Your task to perform on an android device: Show me productivity apps on the Play Store Image 0: 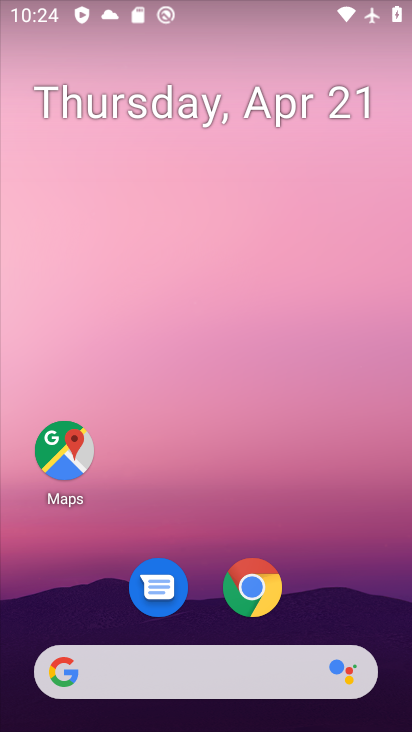
Step 0: drag from (323, 598) to (344, 191)
Your task to perform on an android device: Show me productivity apps on the Play Store Image 1: 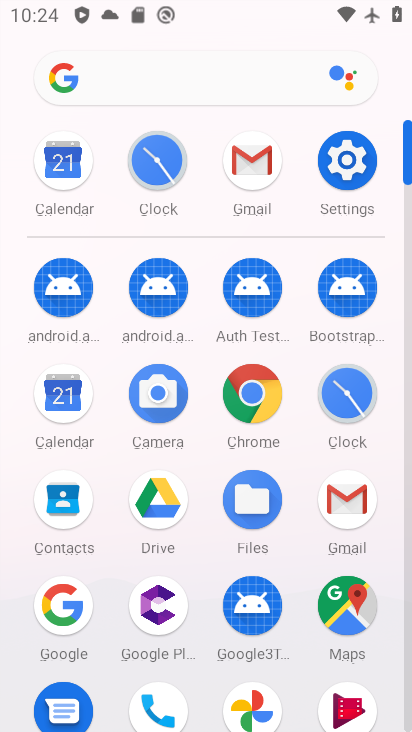
Step 1: drag from (378, 657) to (398, 323)
Your task to perform on an android device: Show me productivity apps on the Play Store Image 2: 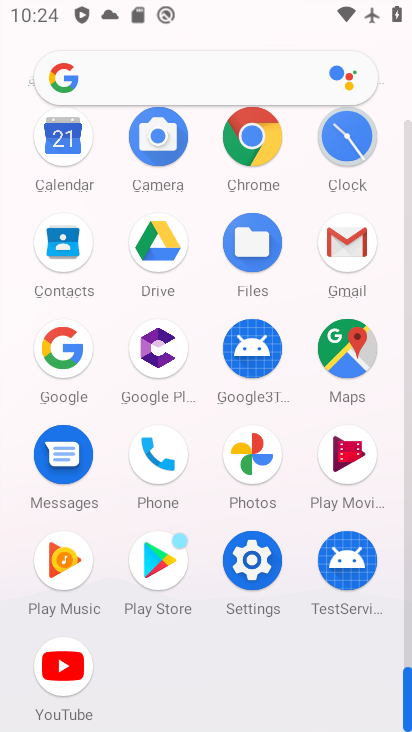
Step 2: click (169, 578)
Your task to perform on an android device: Show me productivity apps on the Play Store Image 3: 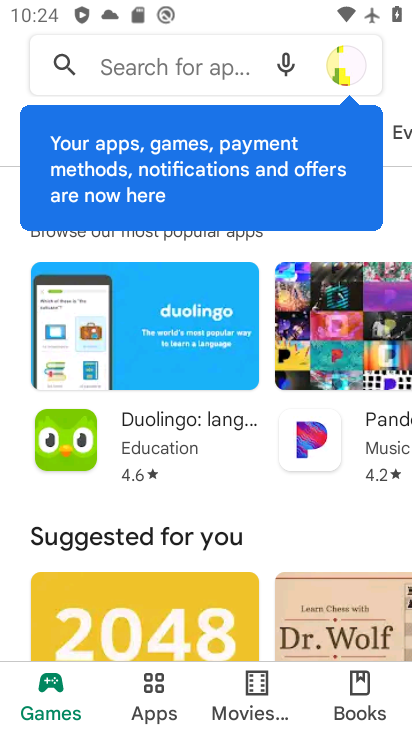
Step 3: click (154, 691)
Your task to perform on an android device: Show me productivity apps on the Play Store Image 4: 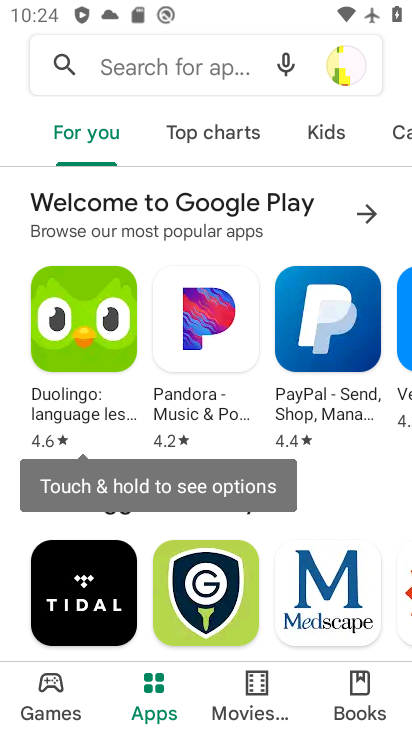
Step 4: drag from (260, 600) to (265, 418)
Your task to perform on an android device: Show me productivity apps on the Play Store Image 5: 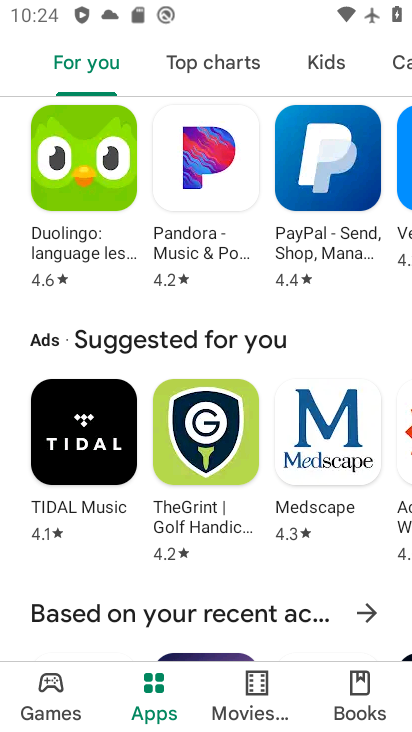
Step 5: drag from (264, 364) to (264, 564)
Your task to perform on an android device: Show me productivity apps on the Play Store Image 6: 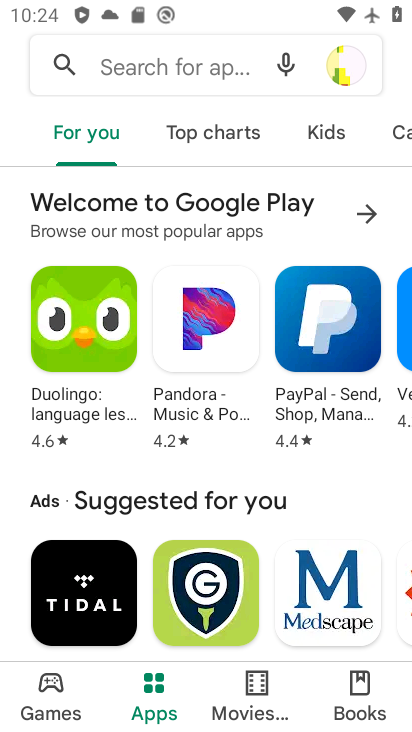
Step 6: drag from (297, 154) to (34, 147)
Your task to perform on an android device: Show me productivity apps on the Play Store Image 7: 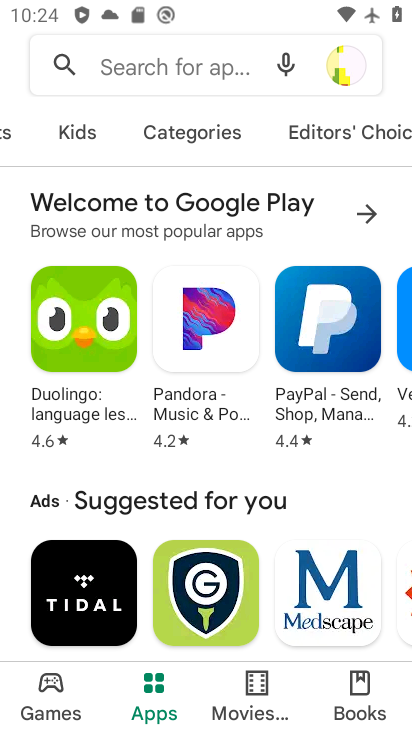
Step 7: drag from (288, 160) to (66, 161)
Your task to perform on an android device: Show me productivity apps on the Play Store Image 8: 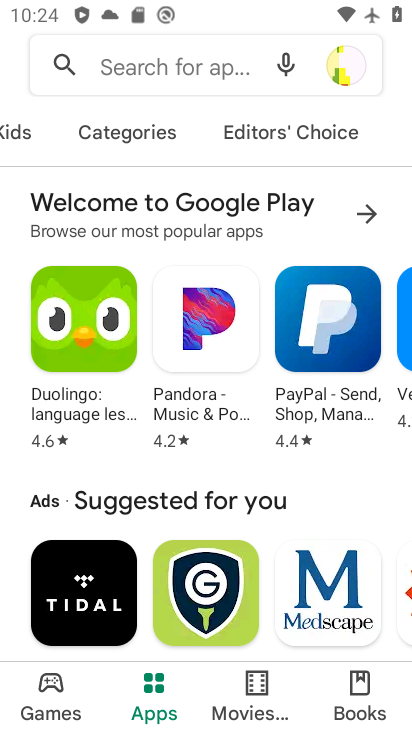
Step 8: drag from (265, 478) to (238, 317)
Your task to perform on an android device: Show me productivity apps on the Play Store Image 9: 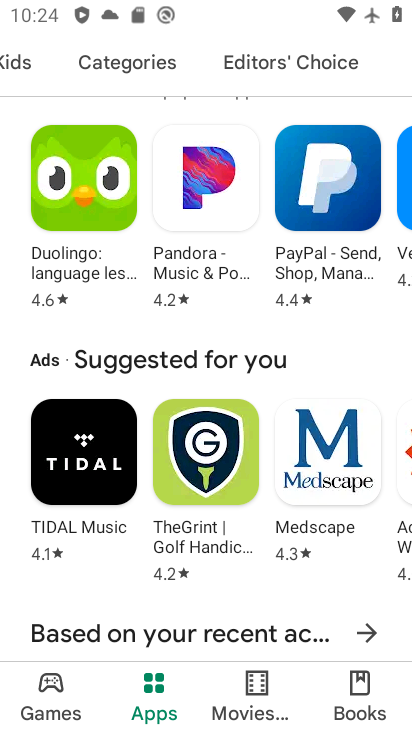
Step 9: drag from (242, 529) to (254, 427)
Your task to perform on an android device: Show me productivity apps on the Play Store Image 10: 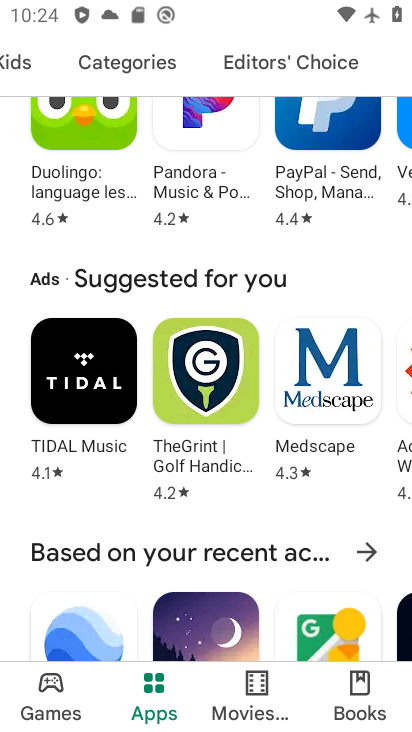
Step 10: drag from (255, 516) to (252, 312)
Your task to perform on an android device: Show me productivity apps on the Play Store Image 11: 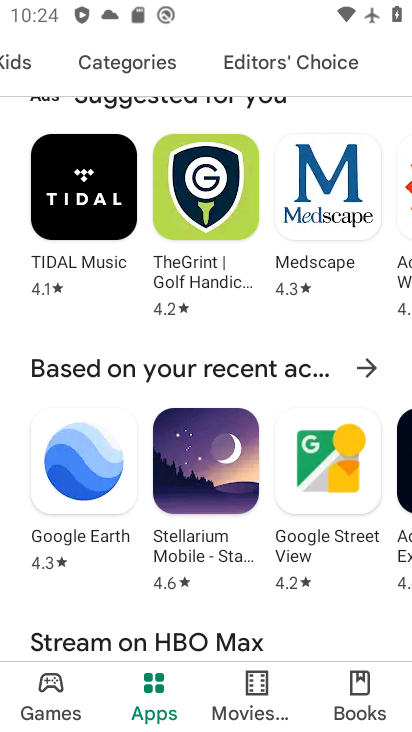
Step 11: drag from (254, 453) to (256, 416)
Your task to perform on an android device: Show me productivity apps on the Play Store Image 12: 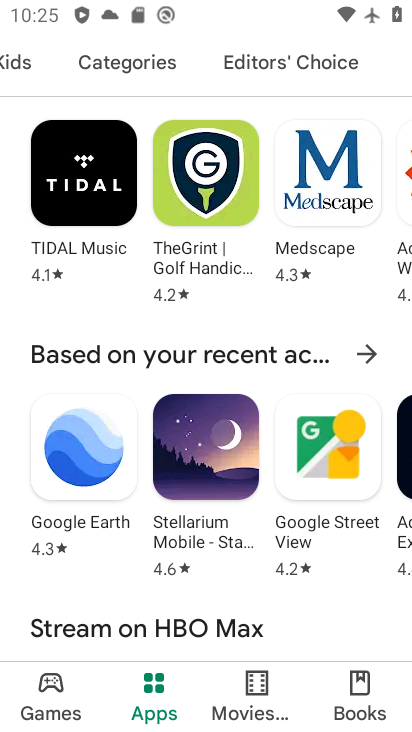
Step 12: drag from (258, 522) to (266, 416)
Your task to perform on an android device: Show me productivity apps on the Play Store Image 13: 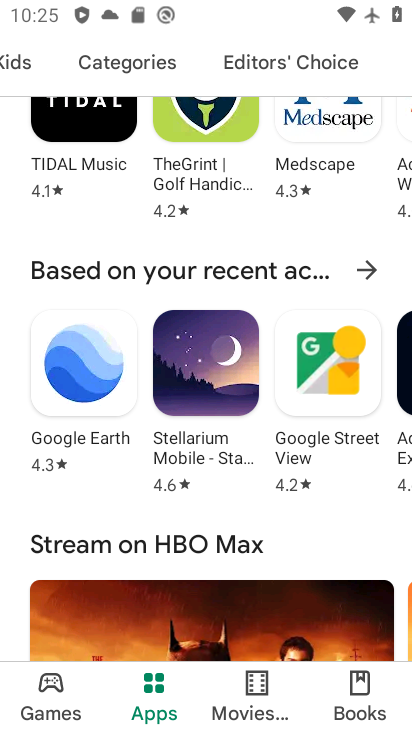
Step 13: drag from (256, 499) to (257, 408)
Your task to perform on an android device: Show me productivity apps on the Play Store Image 14: 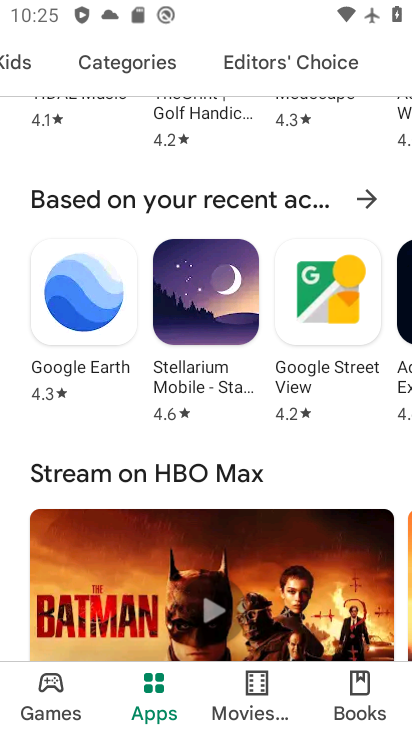
Step 14: drag from (228, 524) to (237, 420)
Your task to perform on an android device: Show me productivity apps on the Play Store Image 15: 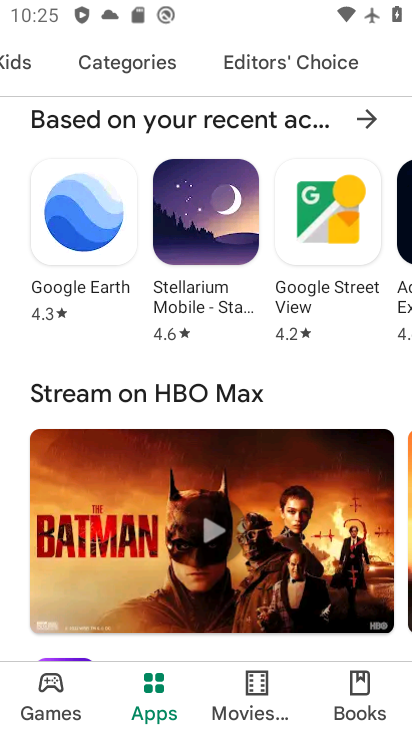
Step 15: drag from (221, 509) to (250, 263)
Your task to perform on an android device: Show me productivity apps on the Play Store Image 16: 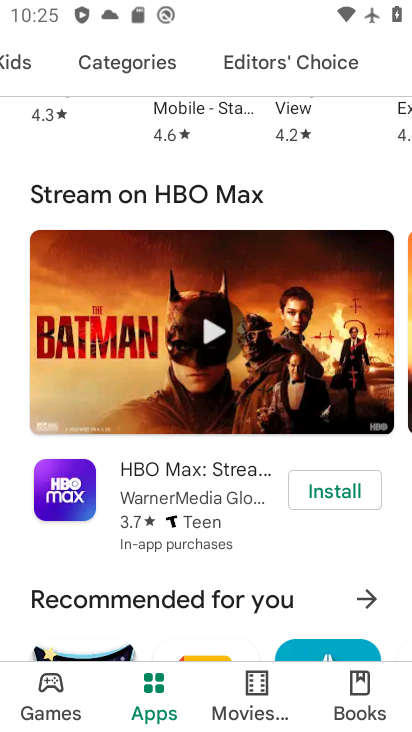
Step 16: drag from (226, 527) to (242, 417)
Your task to perform on an android device: Show me productivity apps on the Play Store Image 17: 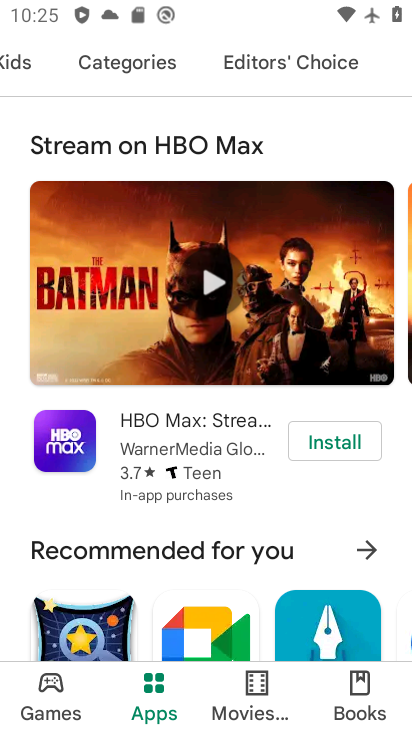
Step 17: drag from (235, 498) to (233, 388)
Your task to perform on an android device: Show me productivity apps on the Play Store Image 18: 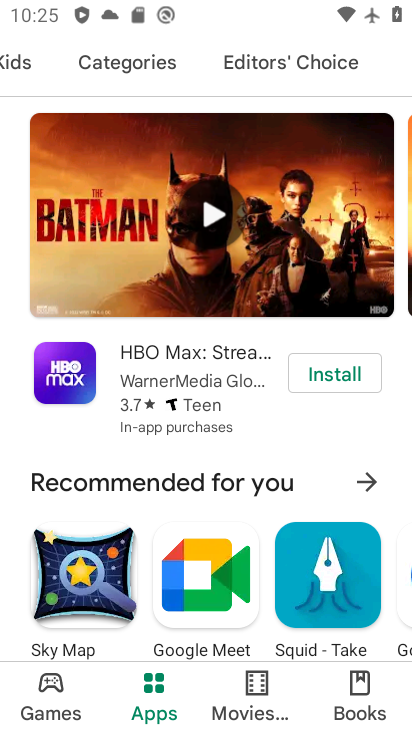
Step 18: drag from (227, 486) to (228, 387)
Your task to perform on an android device: Show me productivity apps on the Play Store Image 19: 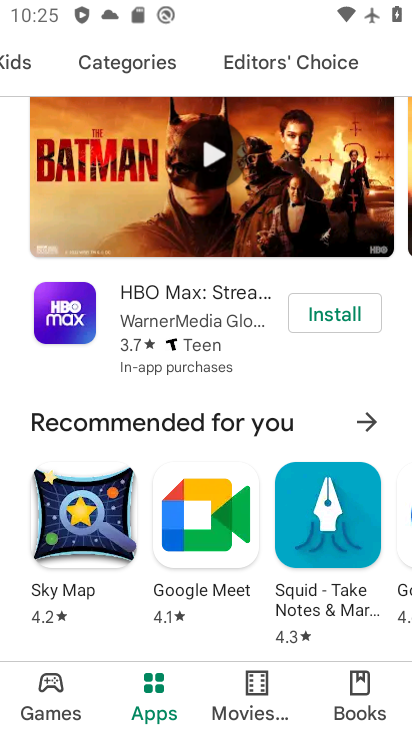
Step 19: drag from (233, 446) to (231, 397)
Your task to perform on an android device: Show me productivity apps on the Play Store Image 20: 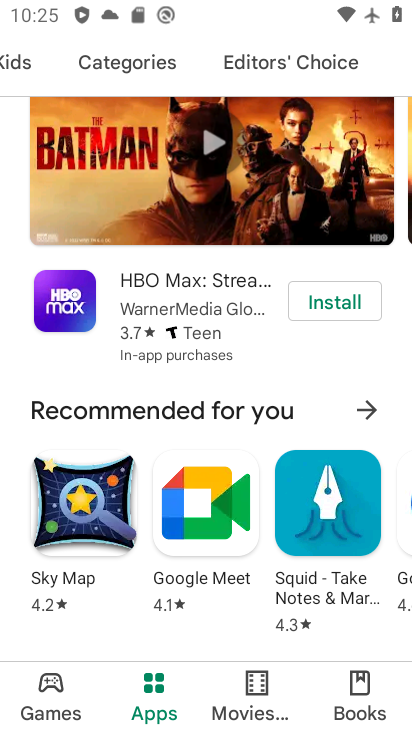
Step 20: drag from (232, 445) to (235, 334)
Your task to perform on an android device: Show me productivity apps on the Play Store Image 21: 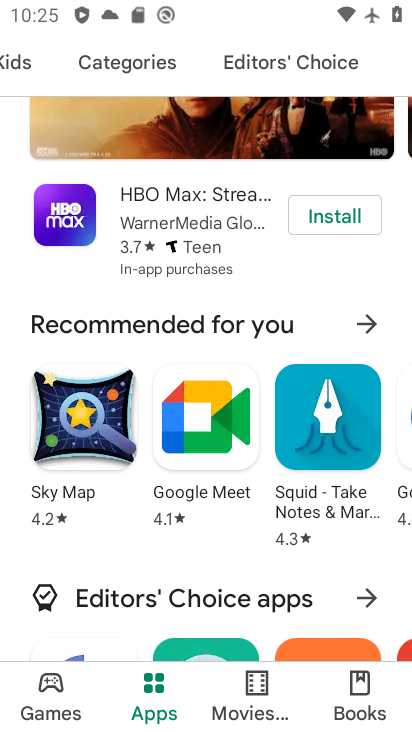
Step 21: drag from (231, 422) to (235, 386)
Your task to perform on an android device: Show me productivity apps on the Play Store Image 22: 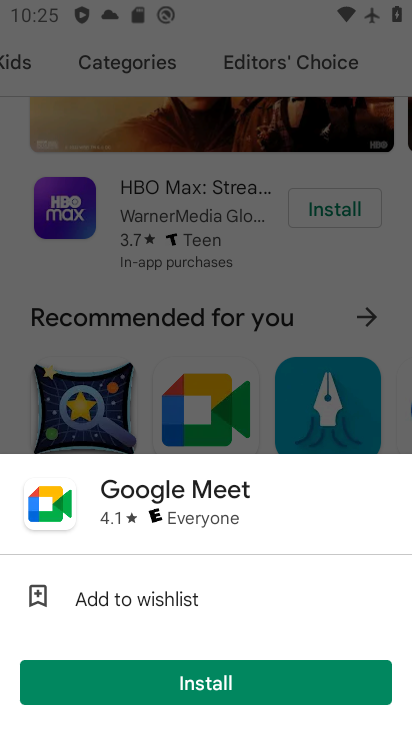
Step 22: drag from (233, 446) to (235, 356)
Your task to perform on an android device: Show me productivity apps on the Play Store Image 23: 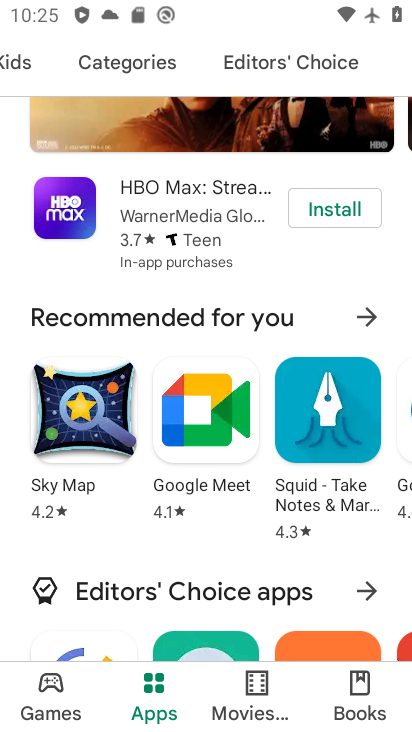
Step 23: click (234, 393)
Your task to perform on an android device: Show me productivity apps on the Play Store Image 24: 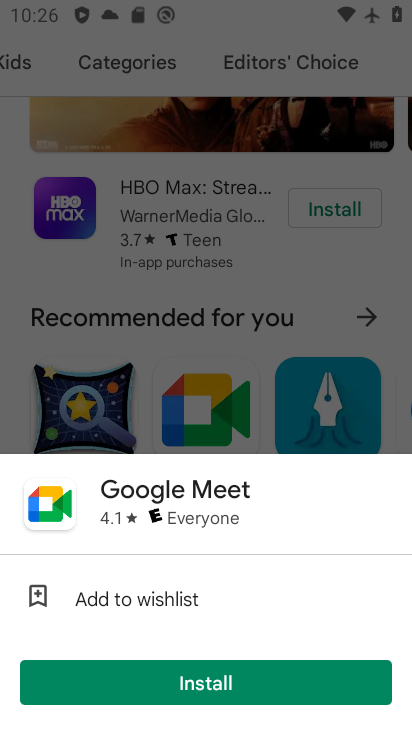
Step 24: task complete